Your task to perform on an android device: add a contact in the contacts app Image 0: 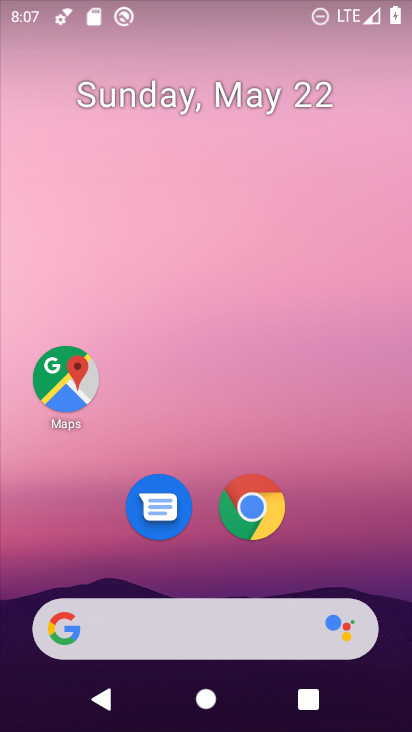
Step 0: drag from (268, 684) to (206, 45)
Your task to perform on an android device: add a contact in the contacts app Image 1: 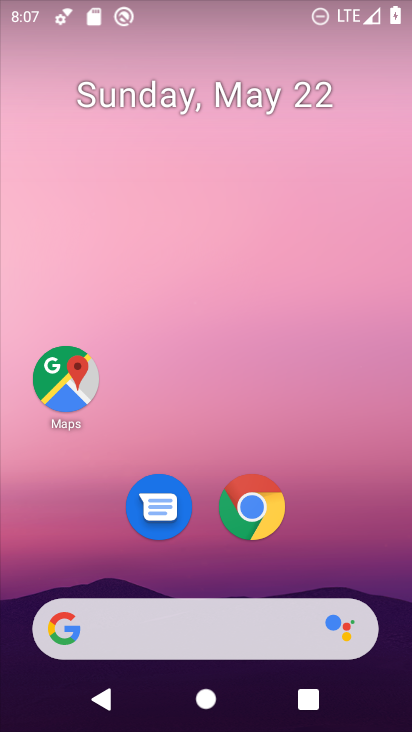
Step 1: drag from (276, 673) to (236, 105)
Your task to perform on an android device: add a contact in the contacts app Image 2: 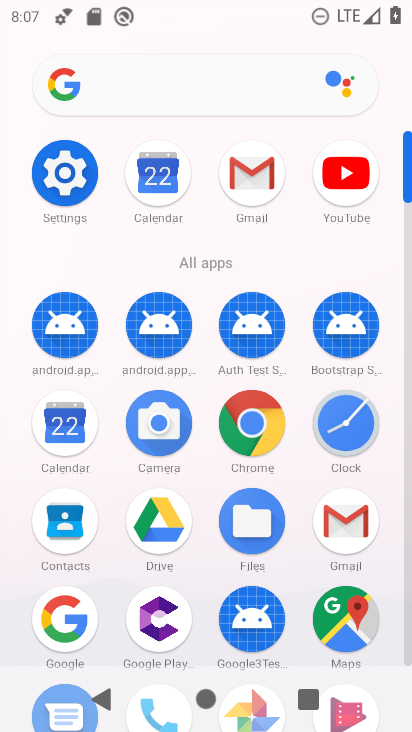
Step 2: click (66, 516)
Your task to perform on an android device: add a contact in the contacts app Image 3: 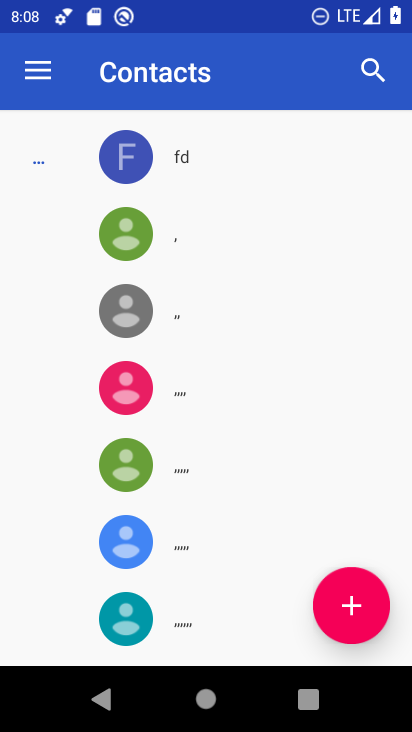
Step 3: click (361, 594)
Your task to perform on an android device: add a contact in the contacts app Image 4: 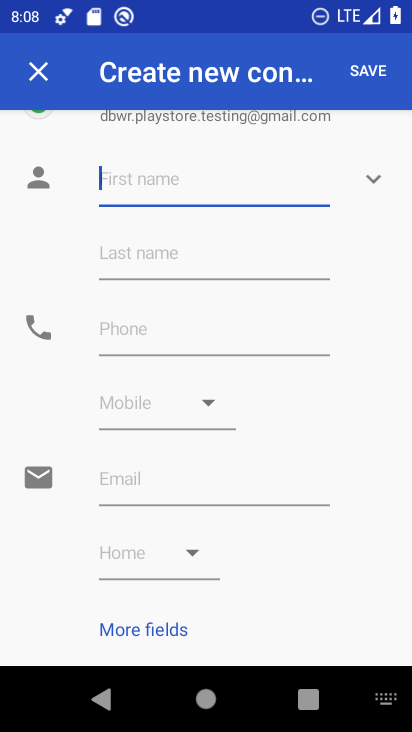
Step 4: type "hggfj"
Your task to perform on an android device: add a contact in the contacts app Image 5: 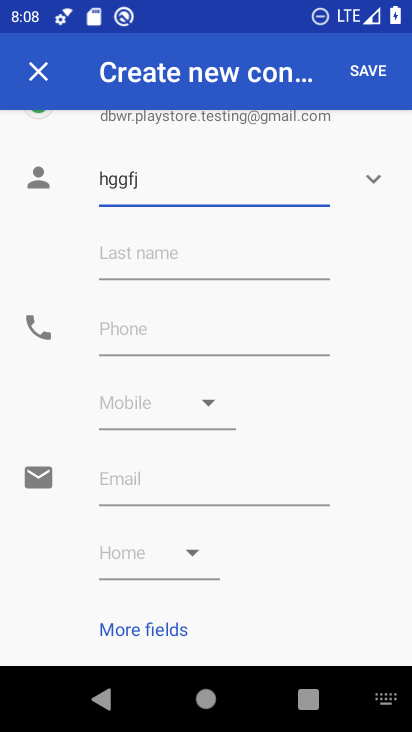
Step 5: click (240, 330)
Your task to perform on an android device: add a contact in the contacts app Image 6: 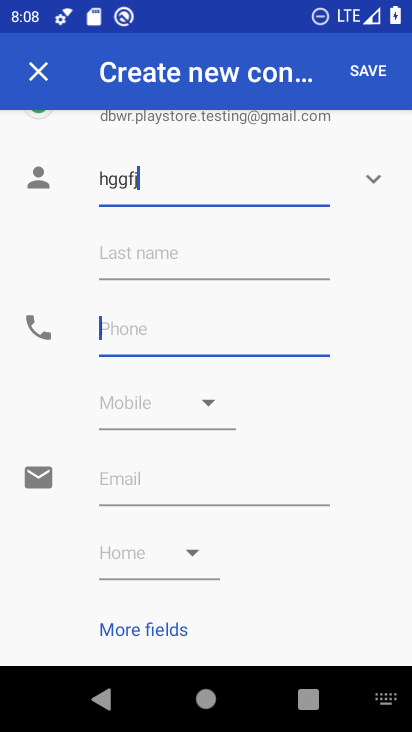
Step 6: click (232, 339)
Your task to perform on an android device: add a contact in the contacts app Image 7: 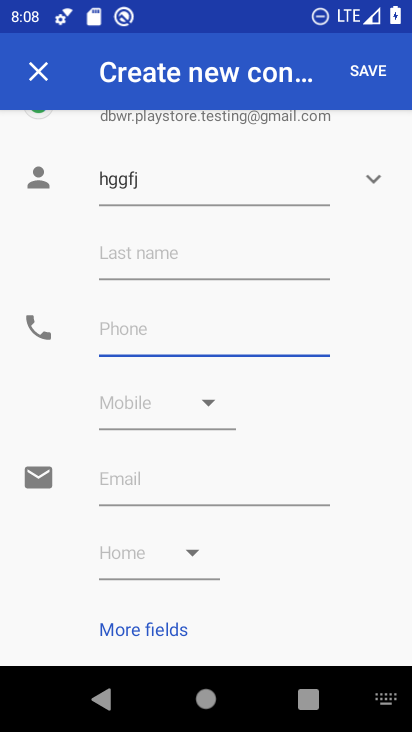
Step 7: type "7869"
Your task to perform on an android device: add a contact in the contacts app Image 8: 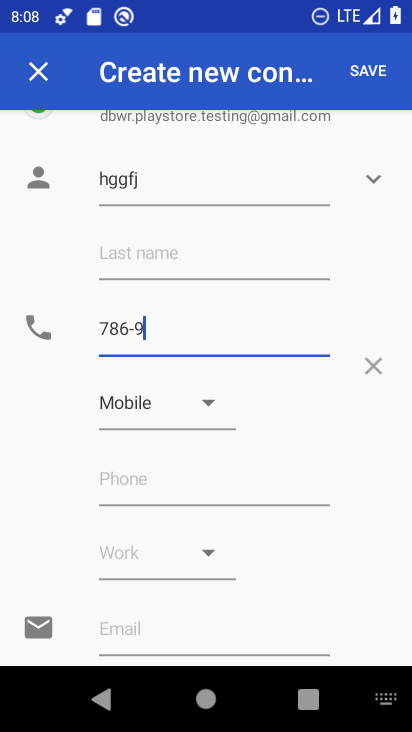
Step 8: click (377, 72)
Your task to perform on an android device: add a contact in the contacts app Image 9: 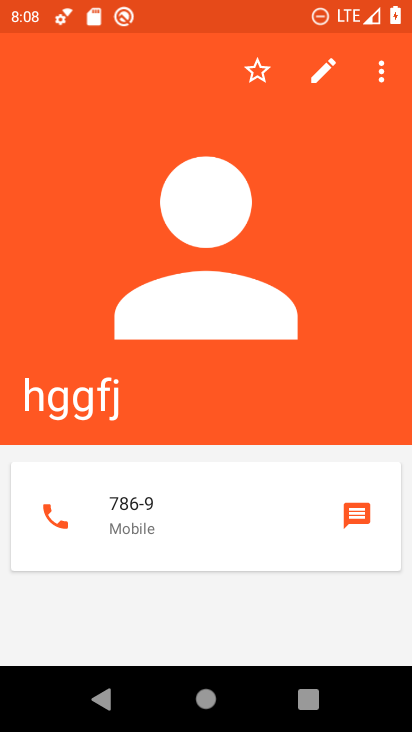
Step 9: task complete